Your task to perform on an android device: turn off translation in the chrome app Image 0: 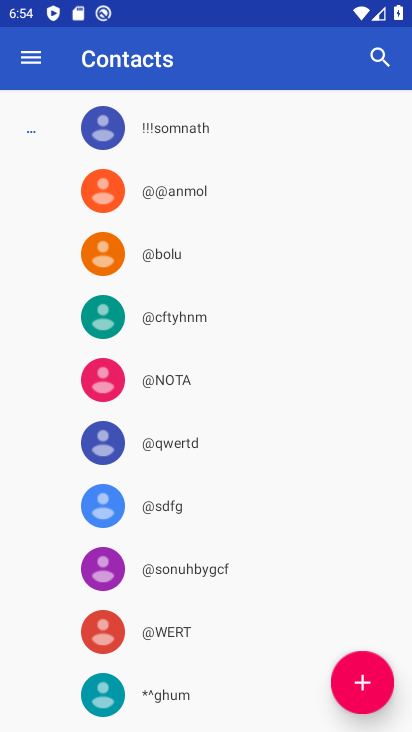
Step 0: press home button
Your task to perform on an android device: turn off translation in the chrome app Image 1: 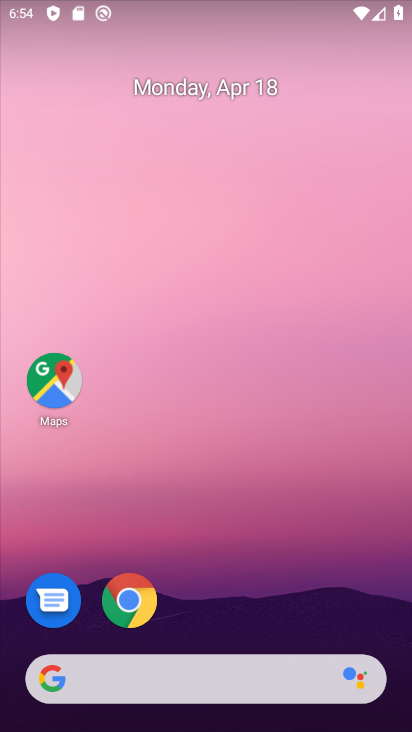
Step 1: drag from (235, 605) to (268, 8)
Your task to perform on an android device: turn off translation in the chrome app Image 2: 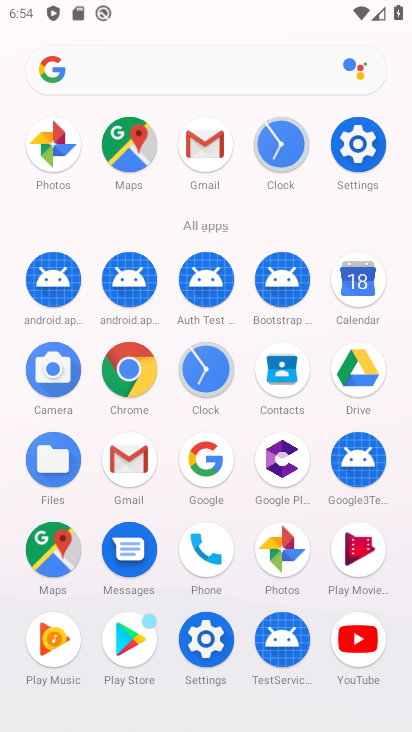
Step 2: click (125, 370)
Your task to perform on an android device: turn off translation in the chrome app Image 3: 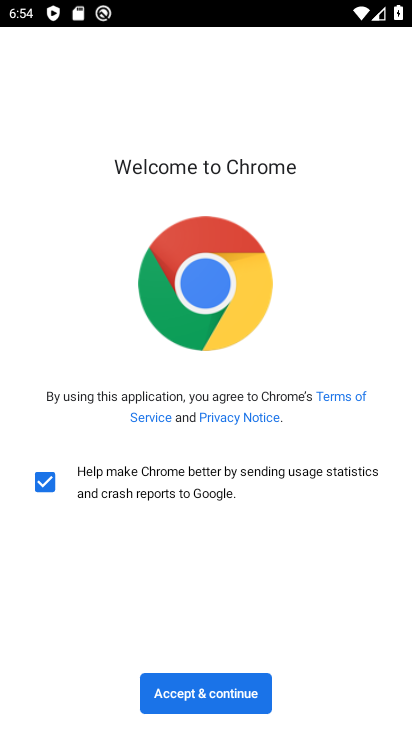
Step 3: click (212, 706)
Your task to perform on an android device: turn off translation in the chrome app Image 4: 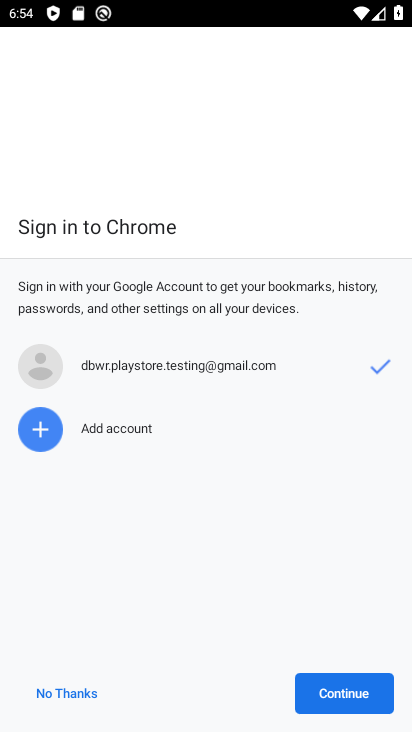
Step 4: click (353, 688)
Your task to perform on an android device: turn off translation in the chrome app Image 5: 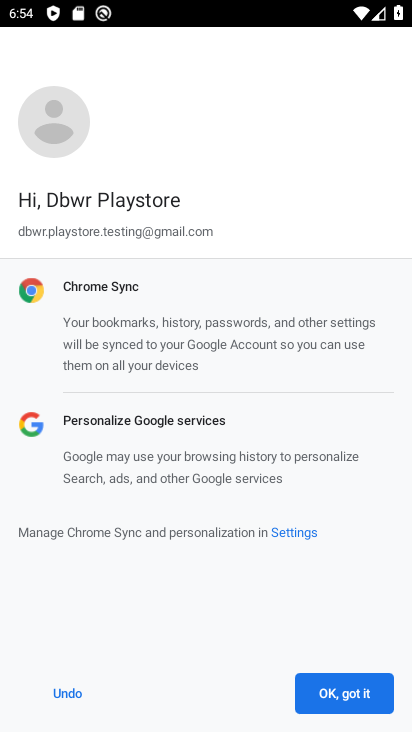
Step 5: click (344, 696)
Your task to perform on an android device: turn off translation in the chrome app Image 6: 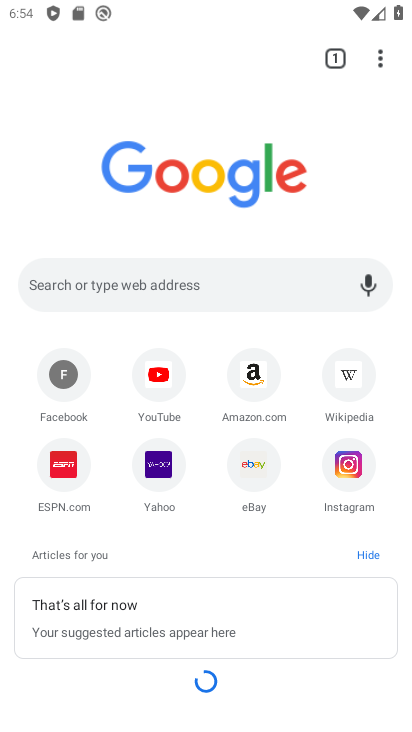
Step 6: click (381, 63)
Your task to perform on an android device: turn off translation in the chrome app Image 7: 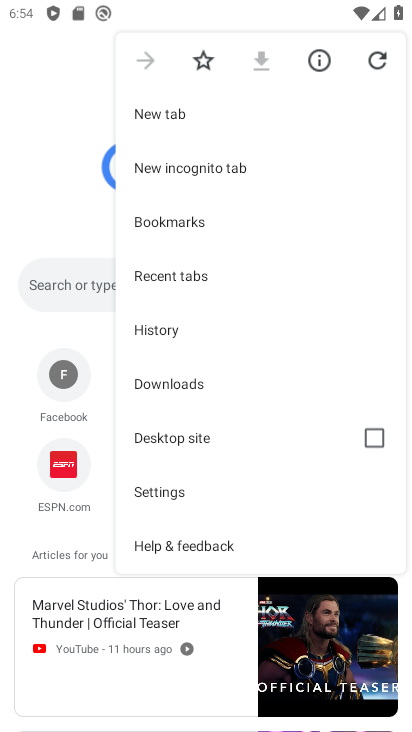
Step 7: click (173, 491)
Your task to perform on an android device: turn off translation in the chrome app Image 8: 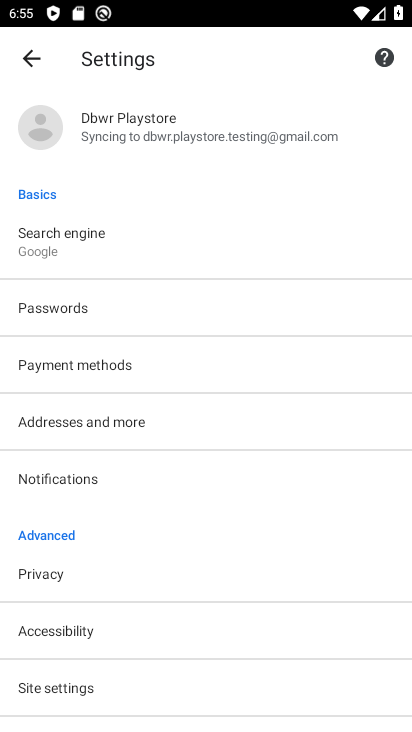
Step 8: drag from (144, 631) to (250, 201)
Your task to perform on an android device: turn off translation in the chrome app Image 9: 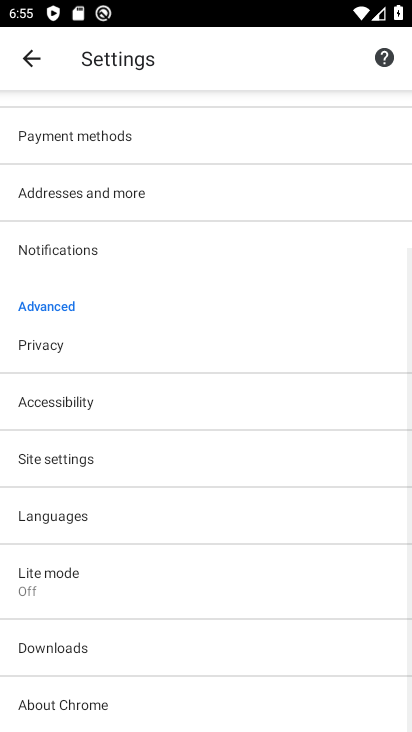
Step 9: click (47, 512)
Your task to perform on an android device: turn off translation in the chrome app Image 10: 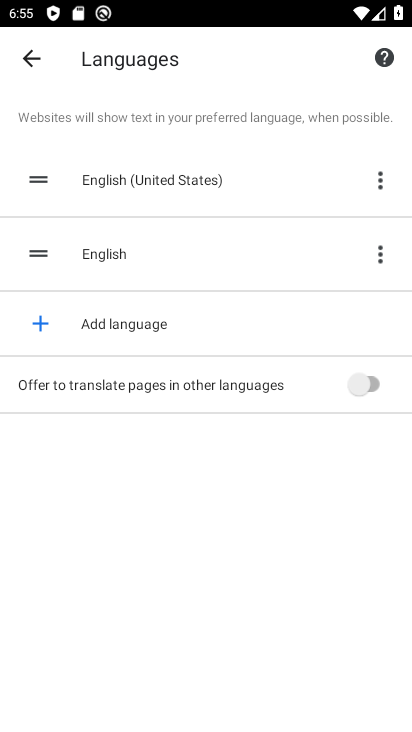
Step 10: task complete